Your task to perform on an android device: Go to CNN.com Image 0: 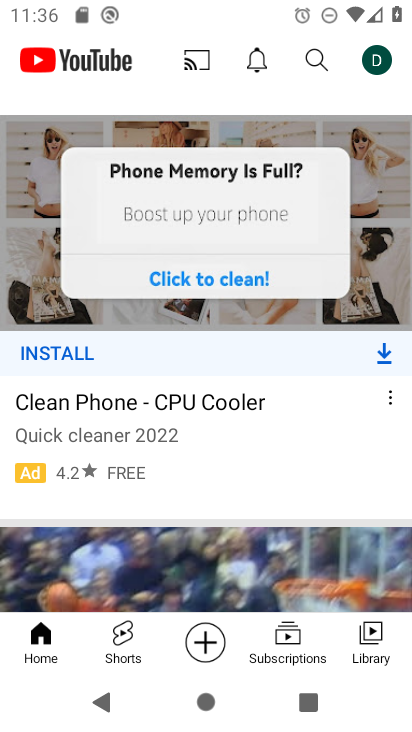
Step 0: press home button
Your task to perform on an android device: Go to CNN.com Image 1: 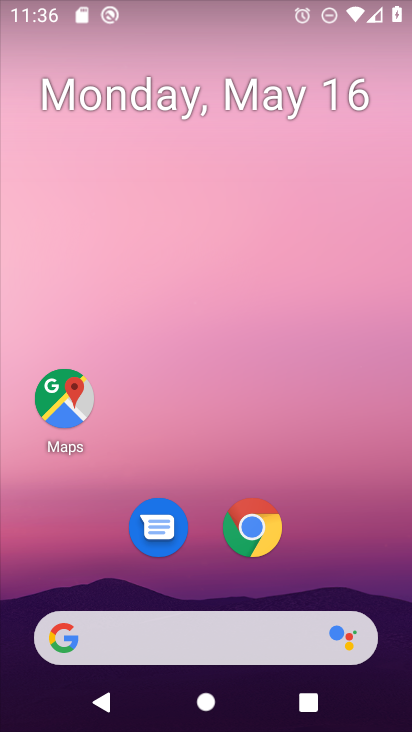
Step 1: click (247, 528)
Your task to perform on an android device: Go to CNN.com Image 2: 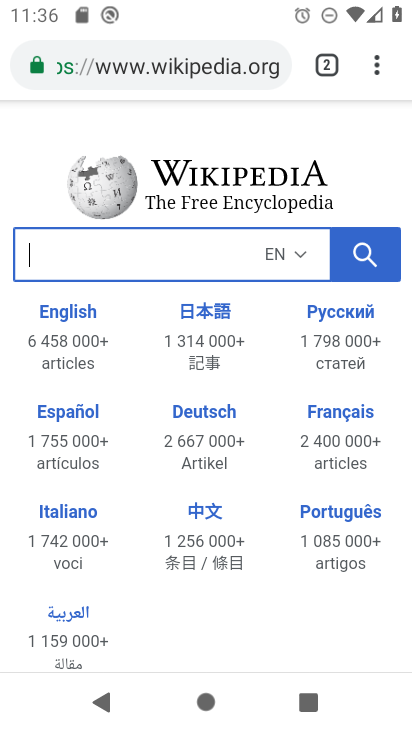
Step 2: click (123, 63)
Your task to perform on an android device: Go to CNN.com Image 3: 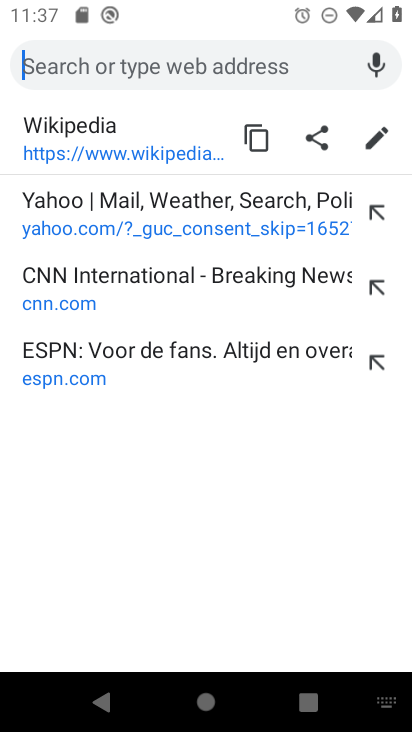
Step 3: click (61, 294)
Your task to perform on an android device: Go to CNN.com Image 4: 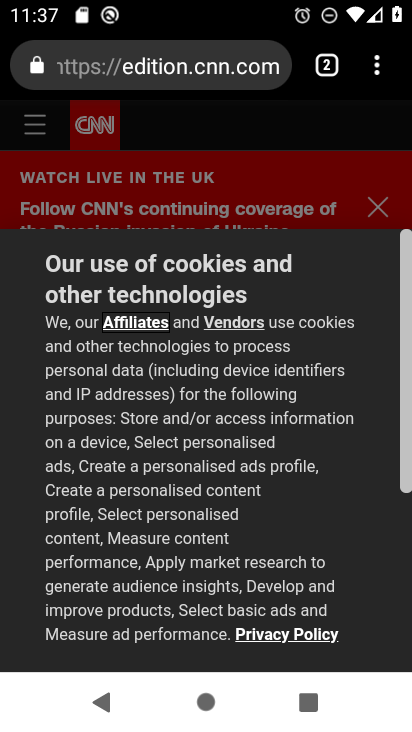
Step 4: task complete